Your task to perform on an android device: search for starred emails in the gmail app Image 0: 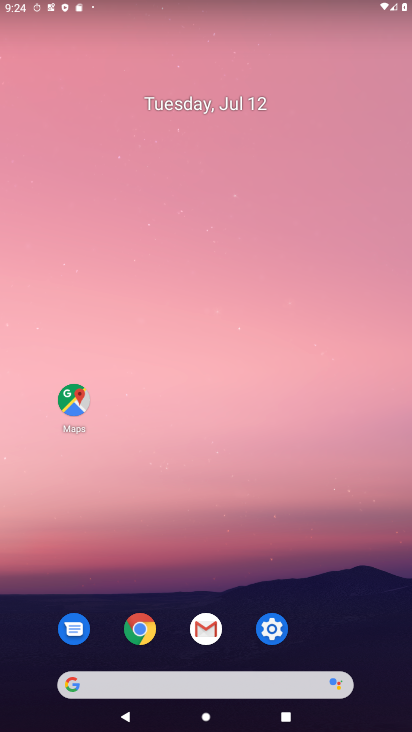
Step 0: click (199, 630)
Your task to perform on an android device: search for starred emails in the gmail app Image 1: 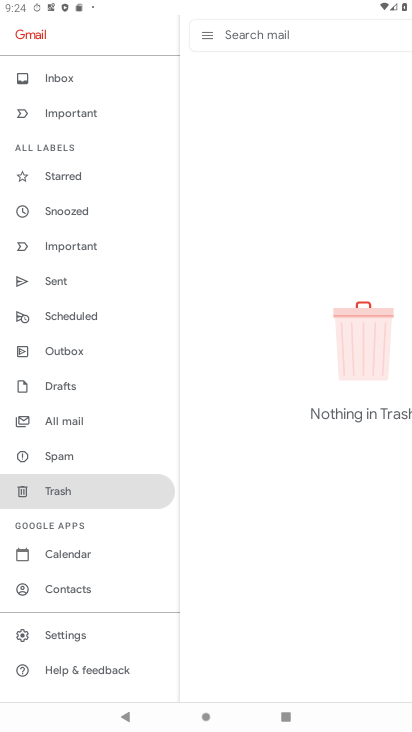
Step 1: click (74, 171)
Your task to perform on an android device: search for starred emails in the gmail app Image 2: 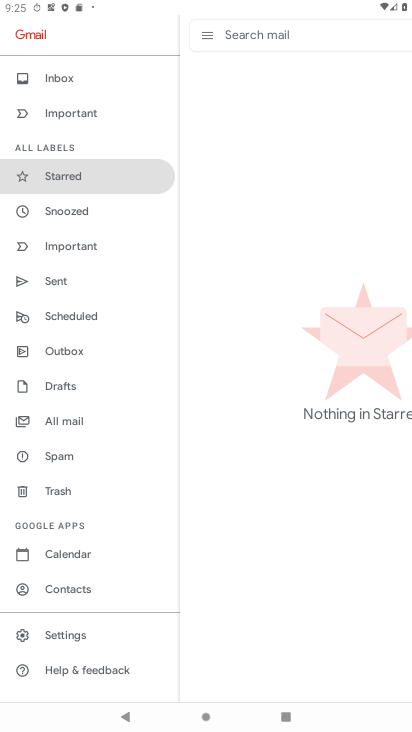
Step 2: task complete